Your task to perform on an android device: Go to ESPN.com Image 0: 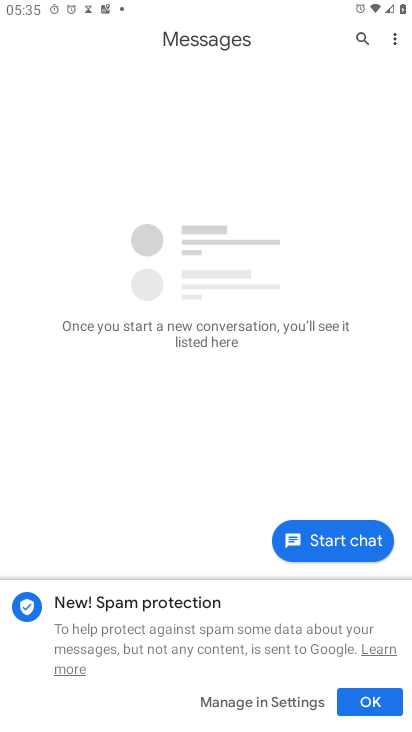
Step 0: press home button
Your task to perform on an android device: Go to ESPN.com Image 1: 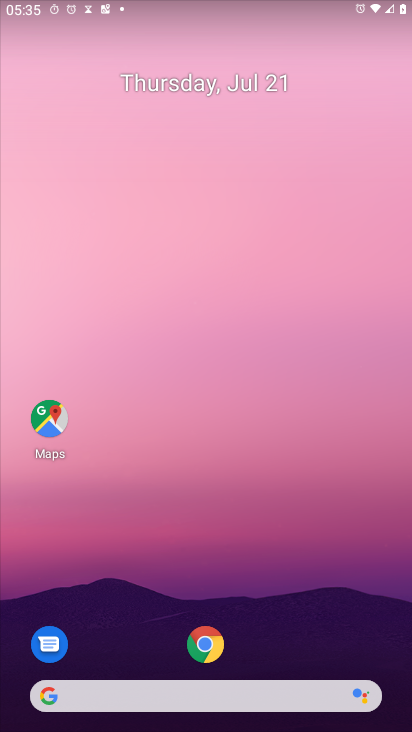
Step 1: click (48, 694)
Your task to perform on an android device: Go to ESPN.com Image 2: 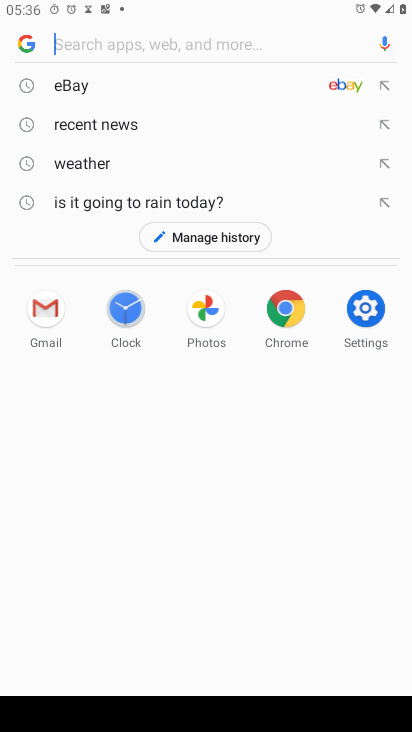
Step 2: type "ESPN.com"
Your task to perform on an android device: Go to ESPN.com Image 3: 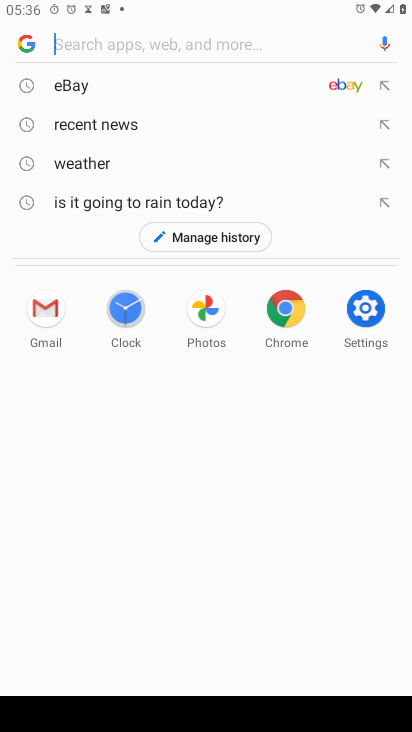
Step 3: click (84, 42)
Your task to perform on an android device: Go to ESPN.com Image 4: 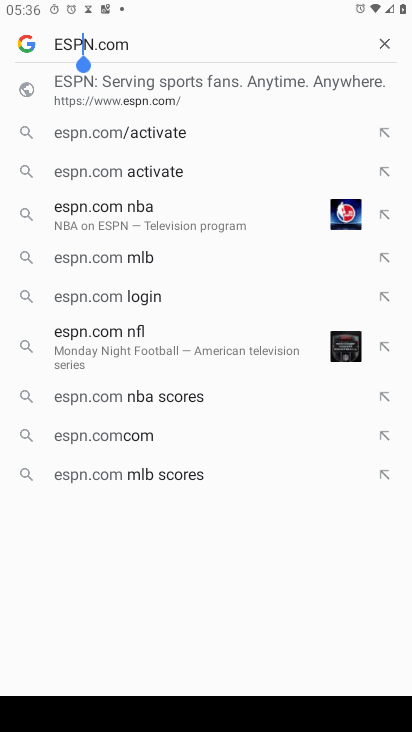
Step 4: press enter
Your task to perform on an android device: Go to ESPN.com Image 5: 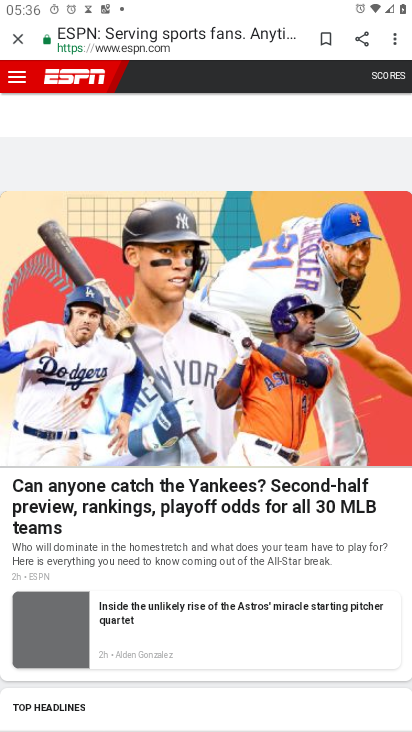
Step 5: task complete